Your task to perform on an android device: Show me popular games on the Play Store Image 0: 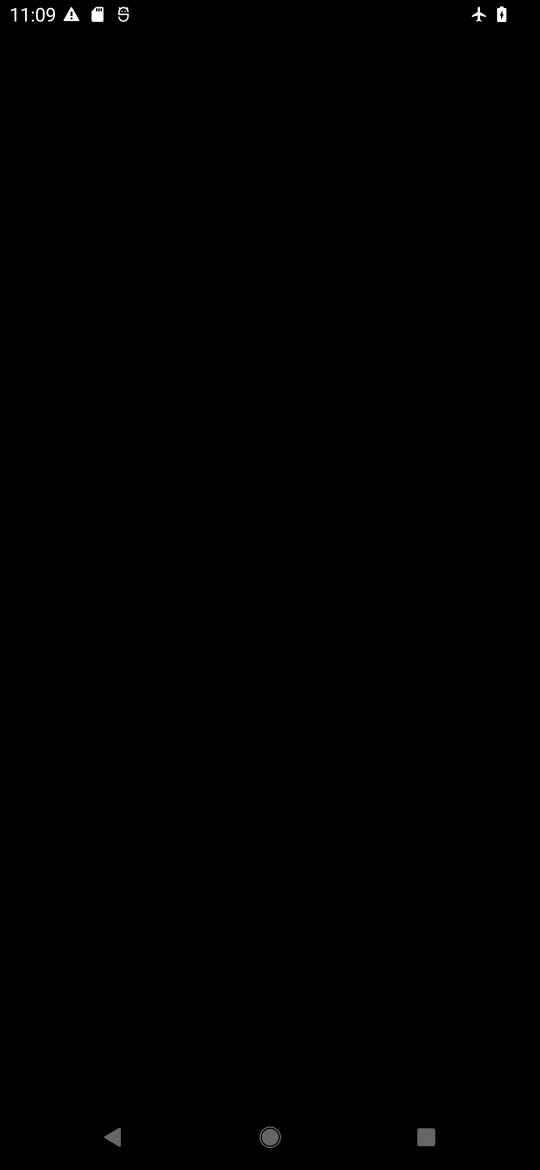
Step 0: press home button
Your task to perform on an android device: Show me popular games on the Play Store Image 1: 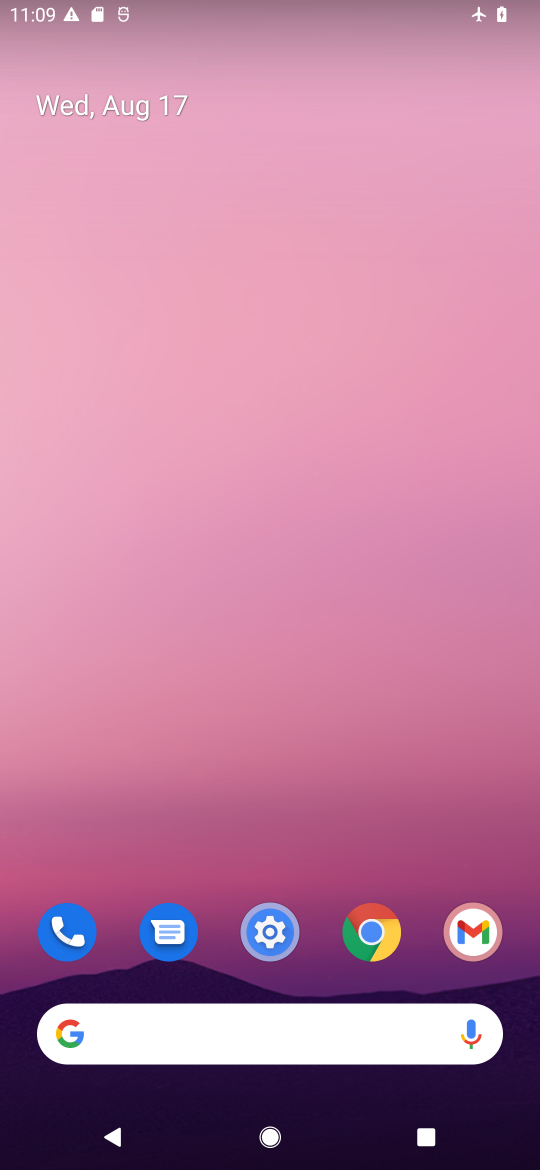
Step 1: drag from (270, 841) to (273, 47)
Your task to perform on an android device: Show me popular games on the Play Store Image 2: 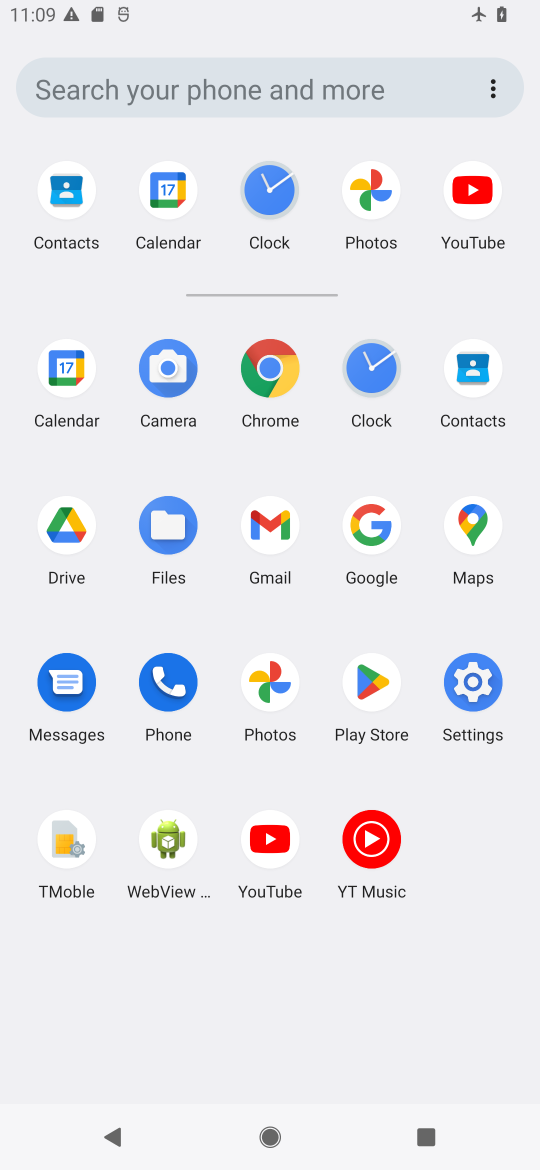
Step 2: click (357, 708)
Your task to perform on an android device: Show me popular games on the Play Store Image 3: 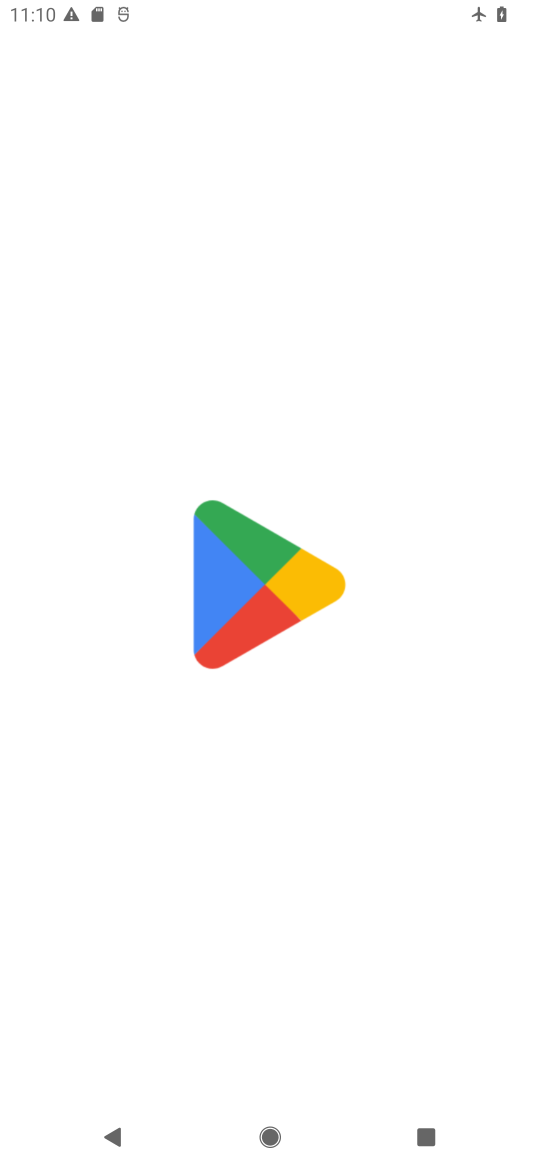
Step 3: task complete